Your task to perform on an android device: open device folders in google photos Image 0: 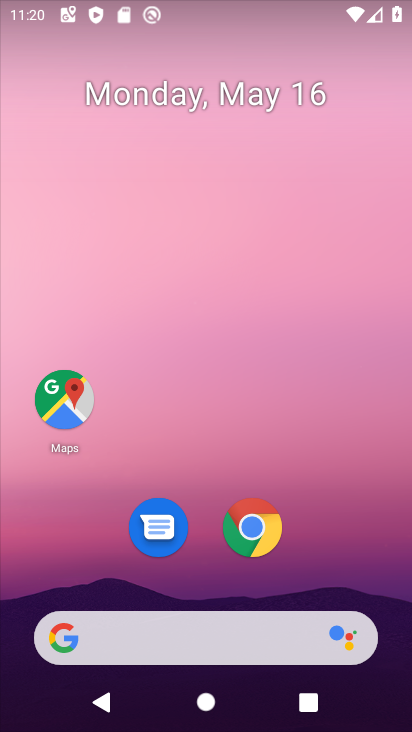
Step 0: drag from (252, 647) to (299, 128)
Your task to perform on an android device: open device folders in google photos Image 1: 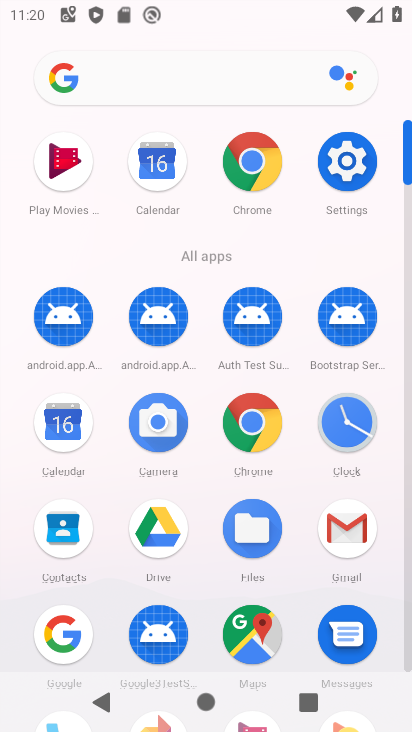
Step 1: drag from (205, 561) to (264, 346)
Your task to perform on an android device: open device folders in google photos Image 2: 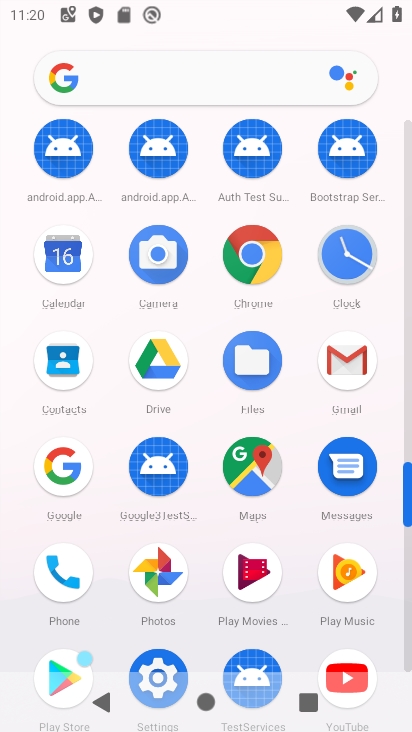
Step 2: click (167, 586)
Your task to perform on an android device: open device folders in google photos Image 3: 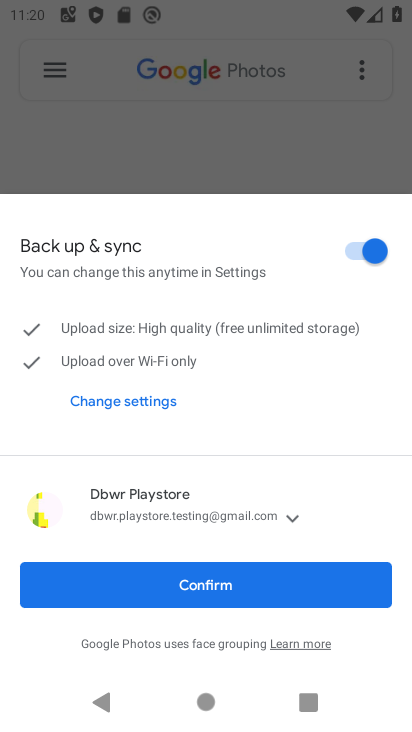
Step 3: click (208, 592)
Your task to perform on an android device: open device folders in google photos Image 4: 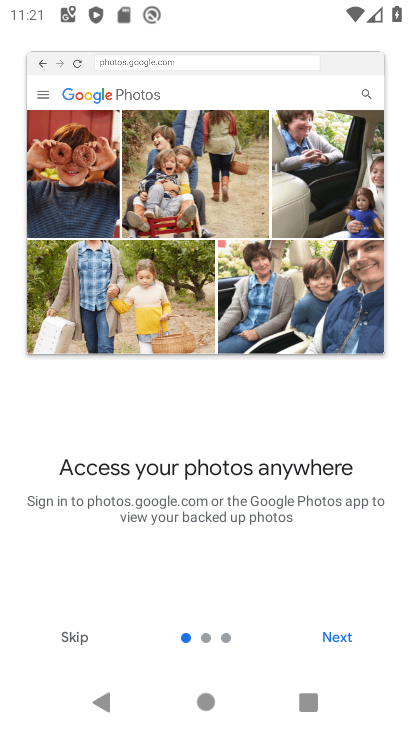
Step 4: click (354, 636)
Your task to perform on an android device: open device folders in google photos Image 5: 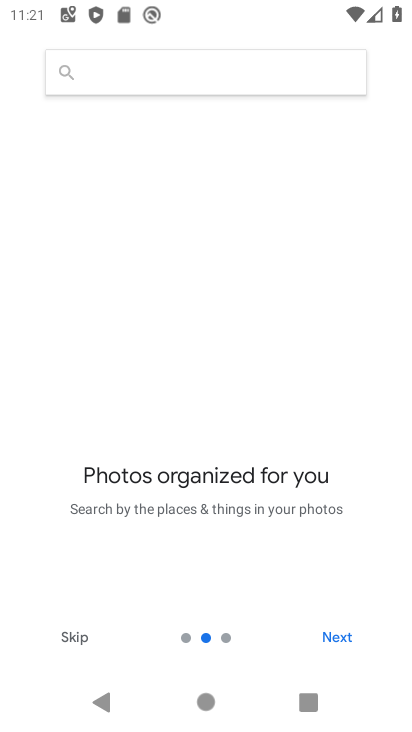
Step 5: click (354, 636)
Your task to perform on an android device: open device folders in google photos Image 6: 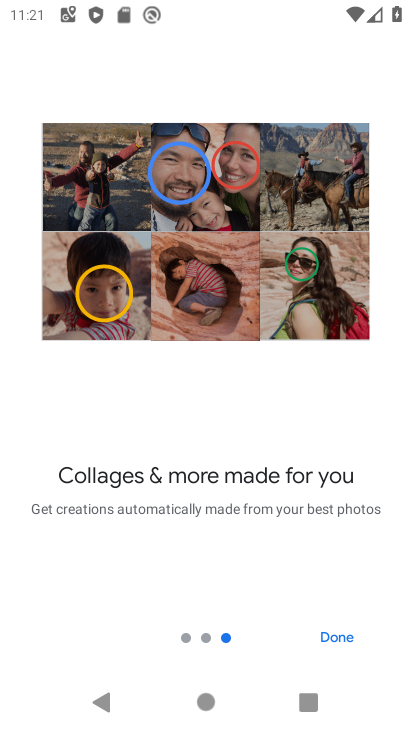
Step 6: click (354, 636)
Your task to perform on an android device: open device folders in google photos Image 7: 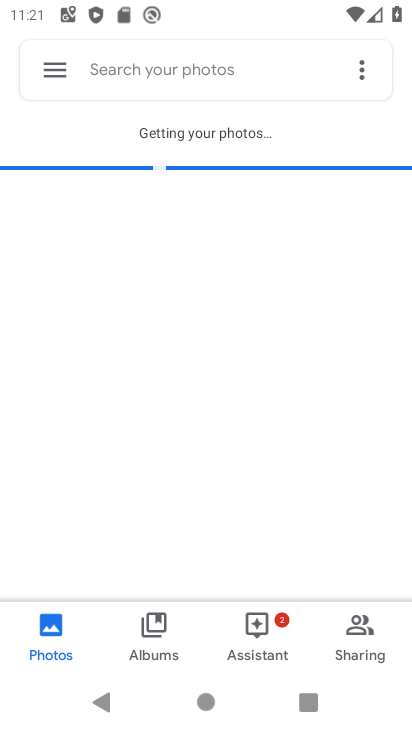
Step 7: click (44, 72)
Your task to perform on an android device: open device folders in google photos Image 8: 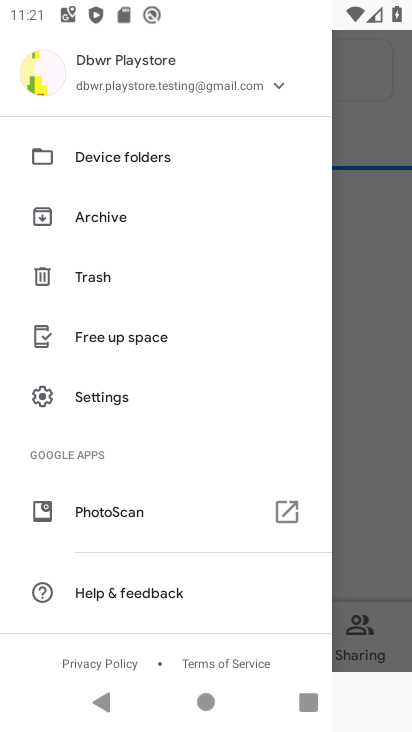
Step 8: click (107, 161)
Your task to perform on an android device: open device folders in google photos Image 9: 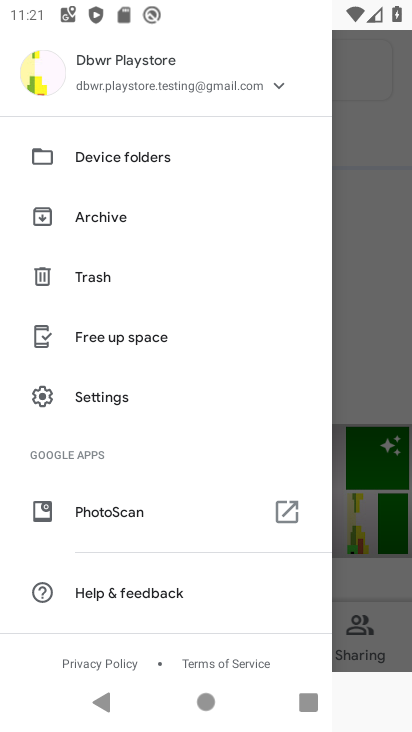
Step 9: click (150, 167)
Your task to perform on an android device: open device folders in google photos Image 10: 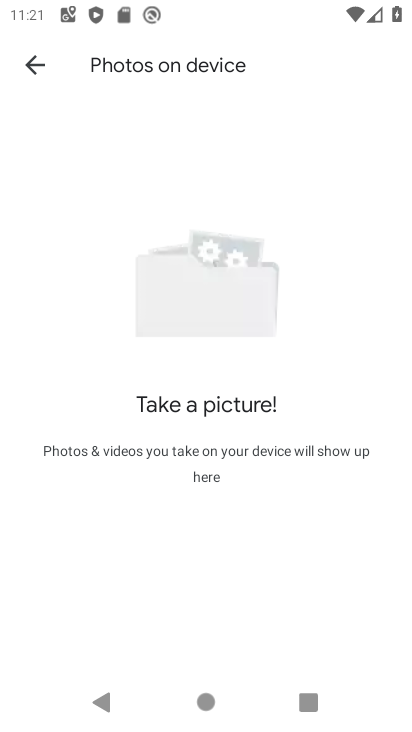
Step 10: task complete